Your task to perform on an android device: Do I have any events today? Image 0: 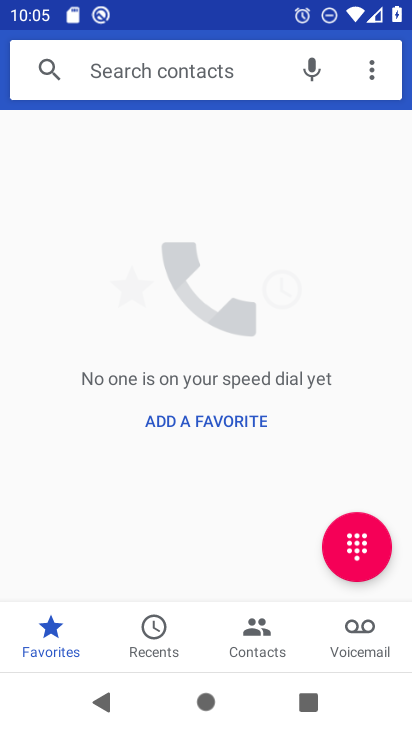
Step 0: press back button
Your task to perform on an android device: Do I have any events today? Image 1: 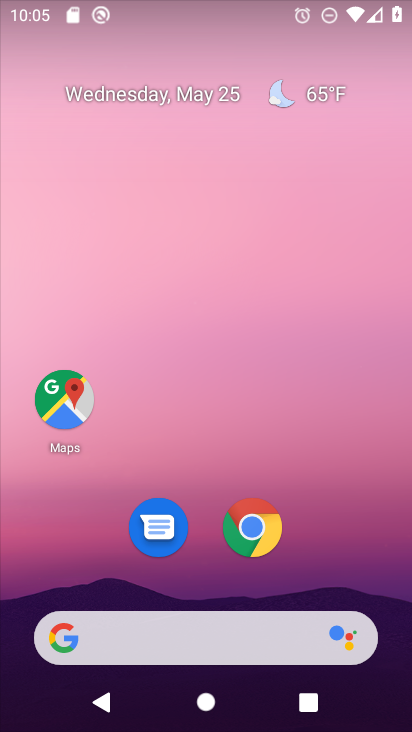
Step 1: drag from (348, 536) to (231, 146)
Your task to perform on an android device: Do I have any events today? Image 2: 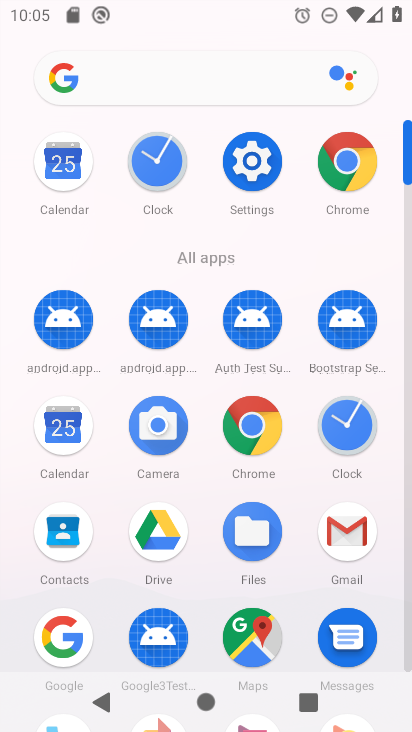
Step 2: click (65, 426)
Your task to perform on an android device: Do I have any events today? Image 3: 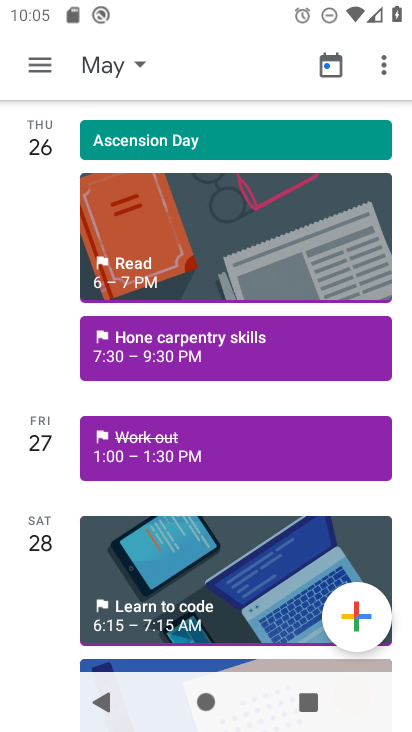
Step 3: click (331, 66)
Your task to perform on an android device: Do I have any events today? Image 4: 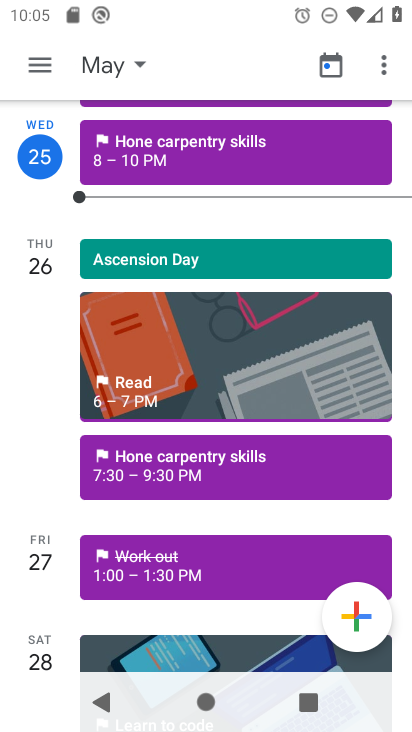
Step 4: click (139, 65)
Your task to perform on an android device: Do I have any events today? Image 5: 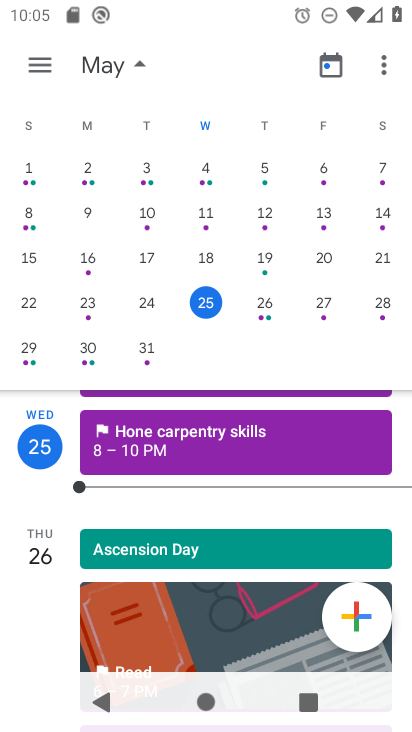
Step 5: click (208, 292)
Your task to perform on an android device: Do I have any events today? Image 6: 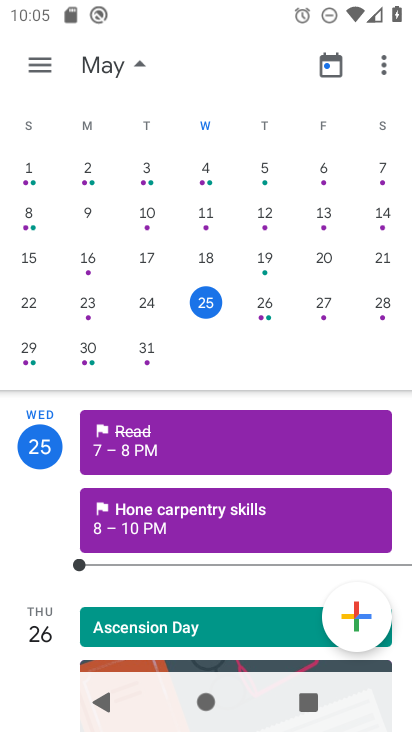
Step 6: click (42, 66)
Your task to perform on an android device: Do I have any events today? Image 7: 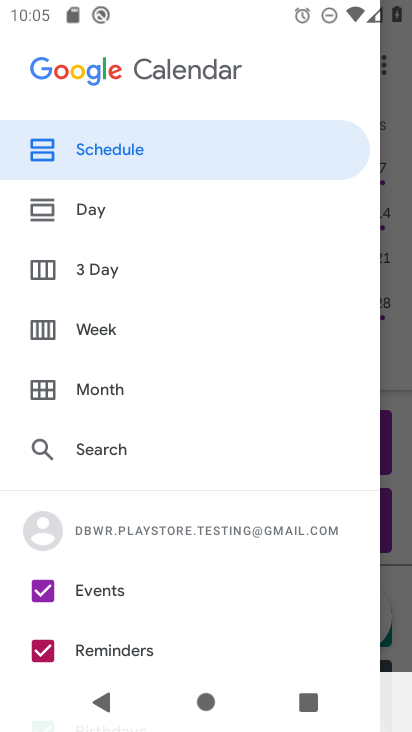
Step 7: click (96, 155)
Your task to perform on an android device: Do I have any events today? Image 8: 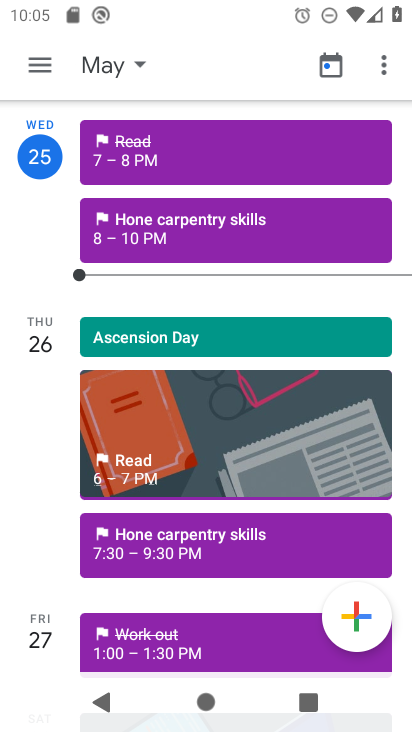
Step 8: task complete